Your task to perform on an android device: Show me recent news Image 0: 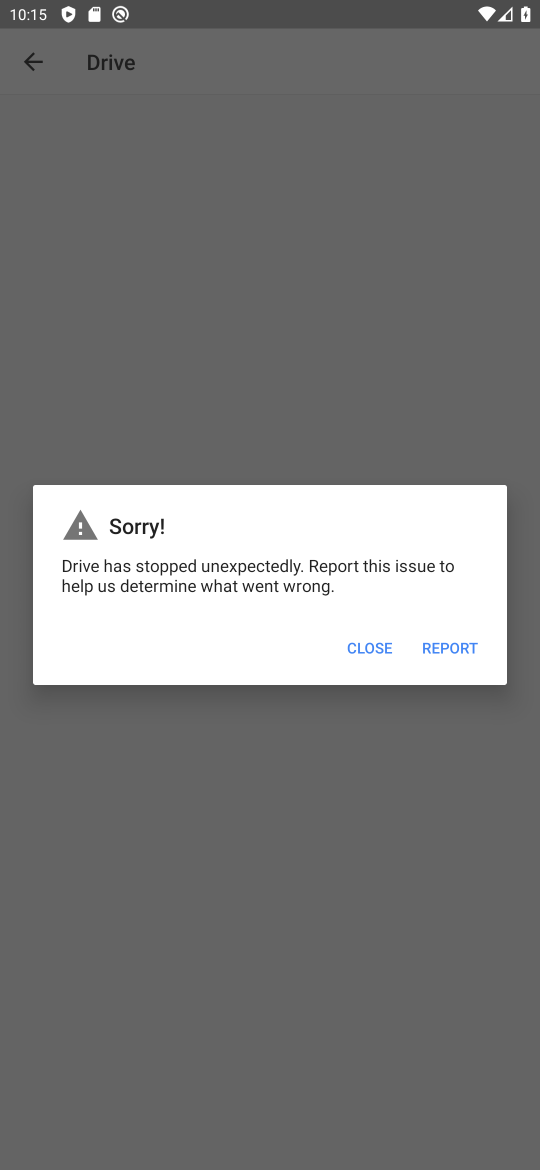
Step 0: press home button
Your task to perform on an android device: Show me recent news Image 1: 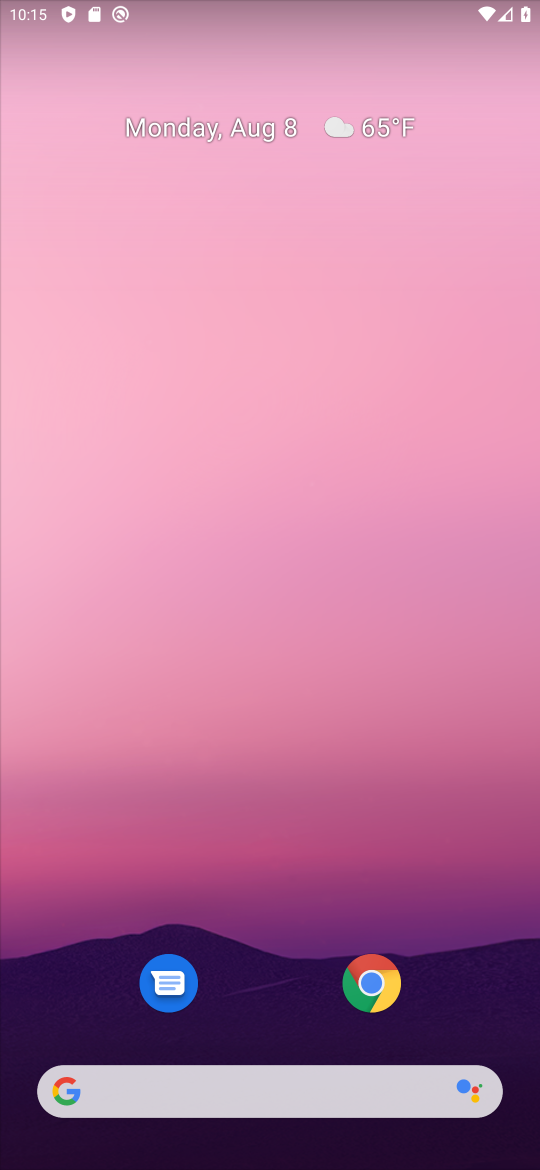
Step 1: click (247, 1069)
Your task to perform on an android device: Show me recent news Image 2: 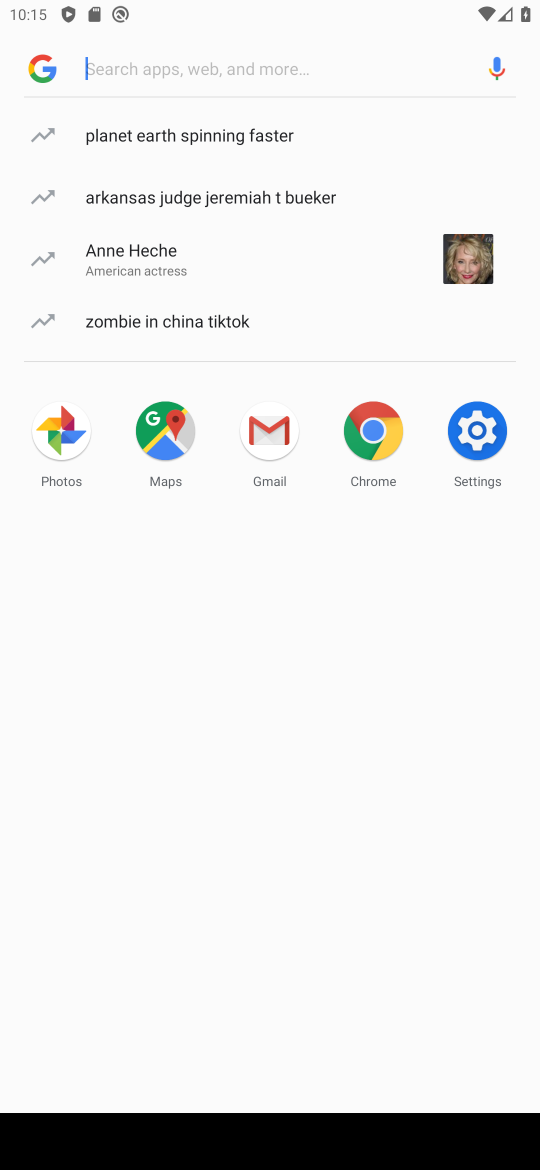
Step 2: type "news"
Your task to perform on an android device: Show me recent news Image 3: 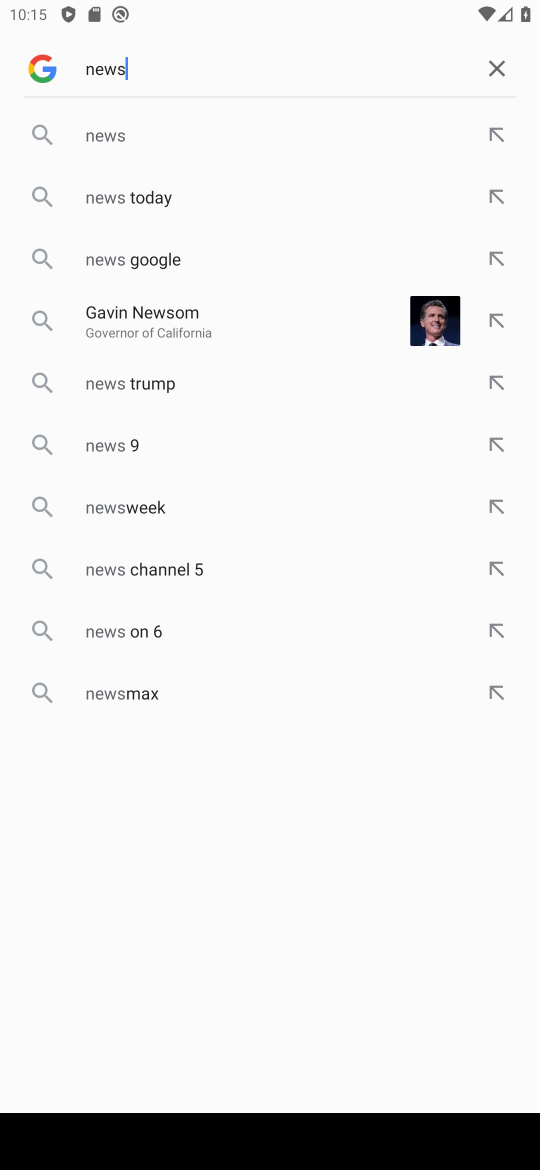
Step 3: click (277, 107)
Your task to perform on an android device: Show me recent news Image 4: 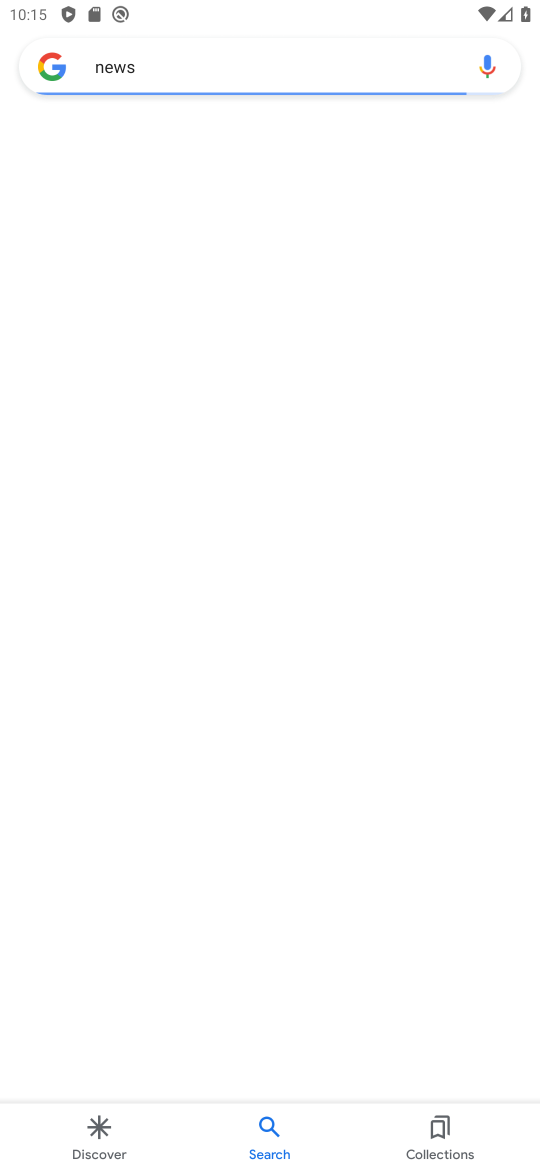
Step 4: task complete